Your task to perform on an android device: Open calendar and show me the second week of next month Image 0: 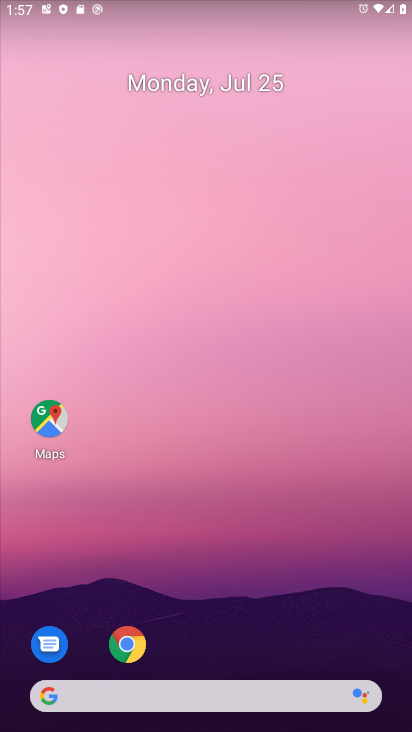
Step 0: drag from (344, 642) to (131, 38)
Your task to perform on an android device: Open calendar and show me the second week of next month Image 1: 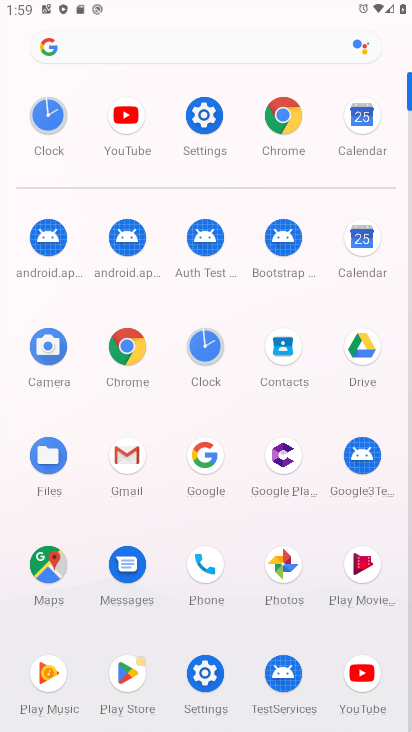
Step 1: click (360, 239)
Your task to perform on an android device: Open calendar and show me the second week of next month Image 2: 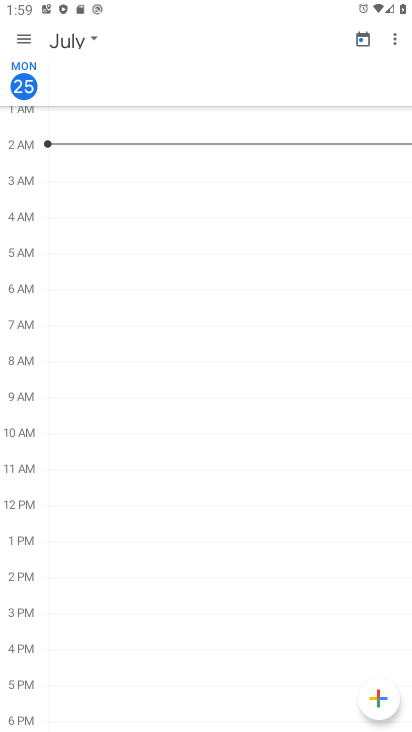
Step 2: click (58, 39)
Your task to perform on an android device: Open calendar and show me the second week of next month Image 3: 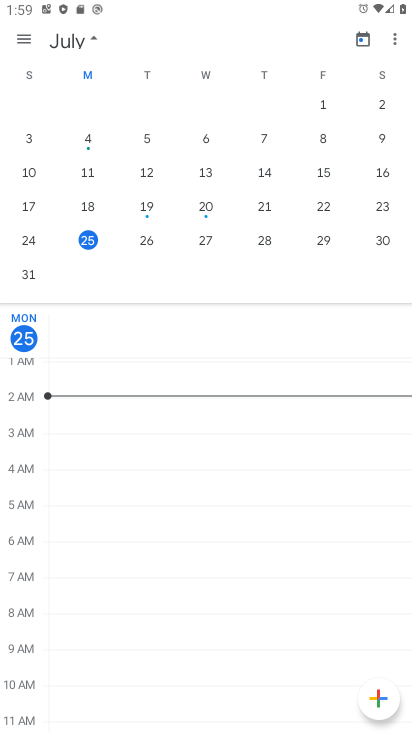
Step 3: drag from (357, 193) to (4, 172)
Your task to perform on an android device: Open calendar and show me the second week of next month Image 4: 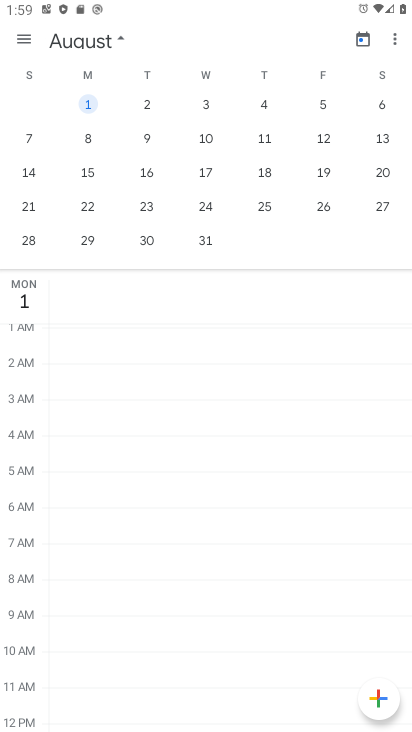
Step 4: click (27, 169)
Your task to perform on an android device: Open calendar and show me the second week of next month Image 5: 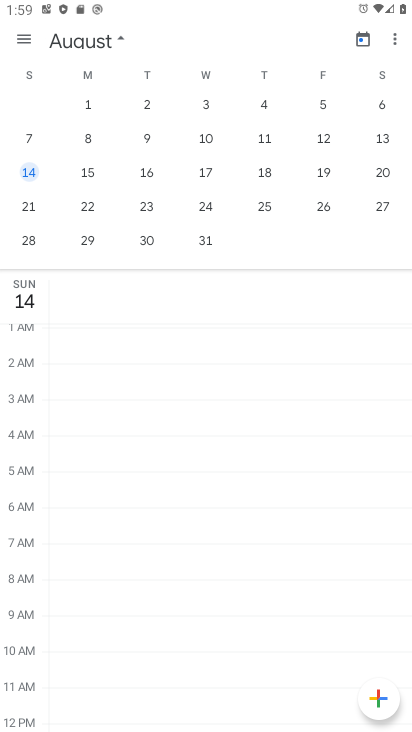
Step 5: task complete